Your task to perform on an android device: Is it going to rain this weekend? Image 0: 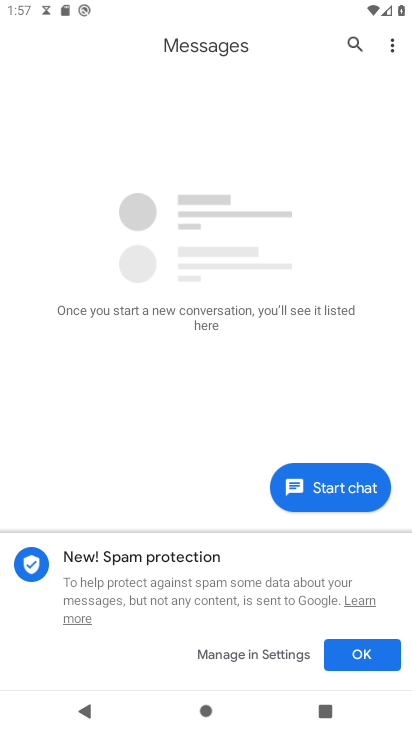
Step 0: press home button
Your task to perform on an android device: Is it going to rain this weekend? Image 1: 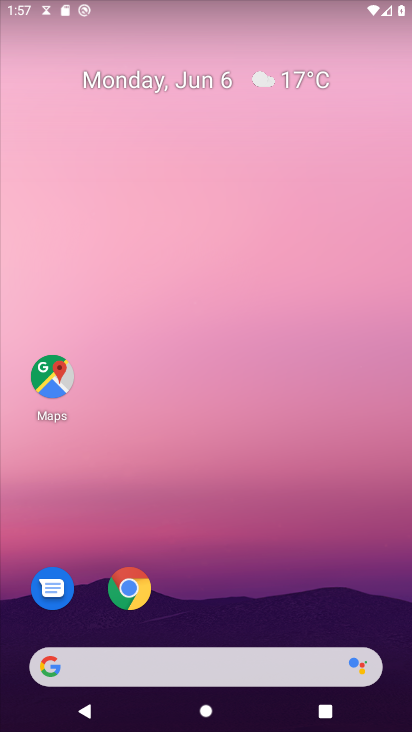
Step 1: drag from (222, 616) to (244, 166)
Your task to perform on an android device: Is it going to rain this weekend? Image 2: 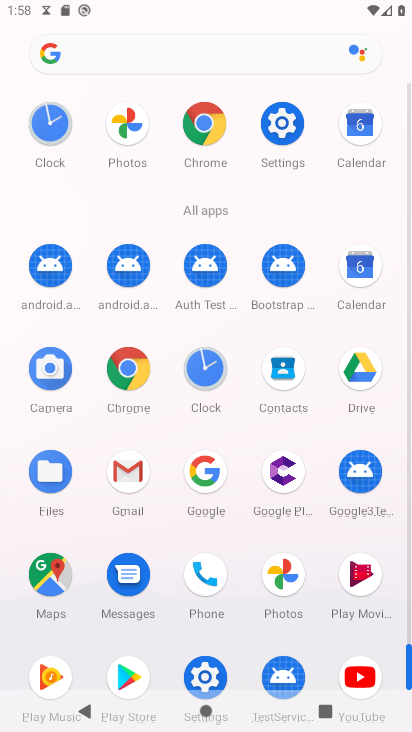
Step 2: click (210, 486)
Your task to perform on an android device: Is it going to rain this weekend? Image 3: 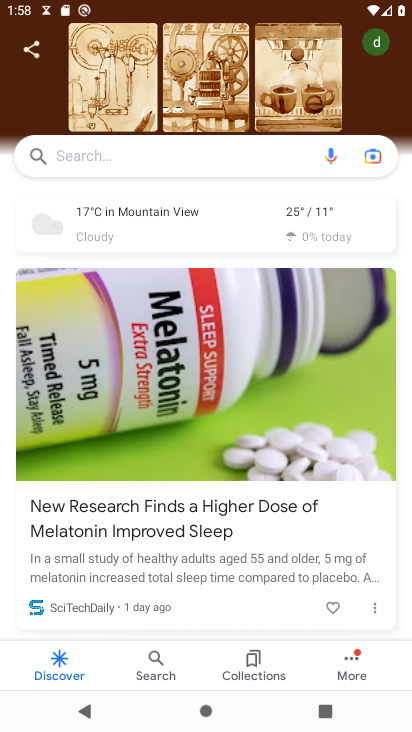
Step 3: click (143, 160)
Your task to perform on an android device: Is it going to rain this weekend? Image 4: 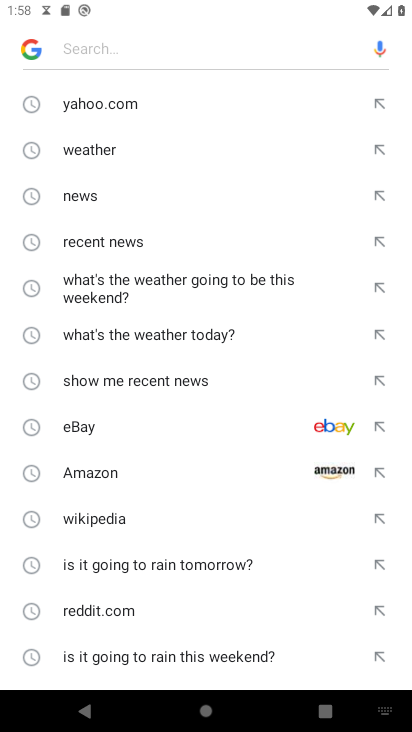
Step 4: click (81, 141)
Your task to perform on an android device: Is it going to rain this weekend? Image 5: 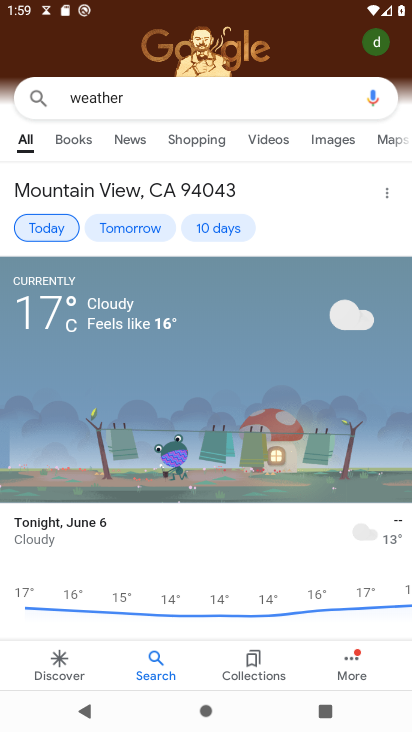
Step 5: click (211, 229)
Your task to perform on an android device: Is it going to rain this weekend? Image 6: 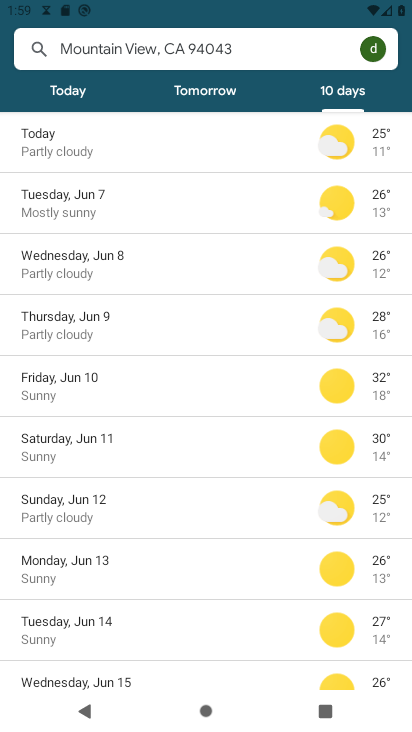
Step 6: task complete